Your task to perform on an android device: check out phone information Image 0: 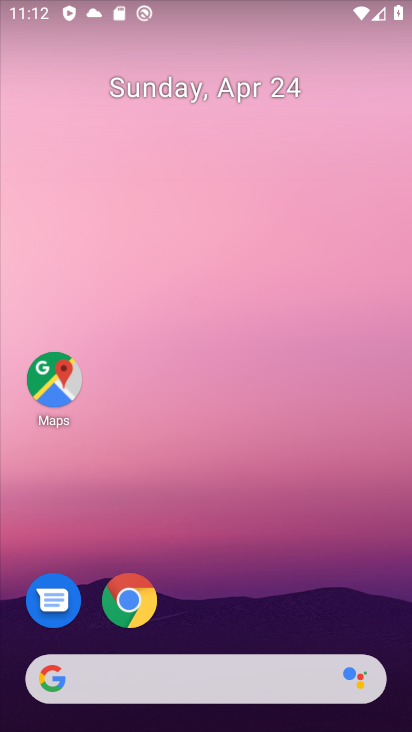
Step 0: click (273, 504)
Your task to perform on an android device: check out phone information Image 1: 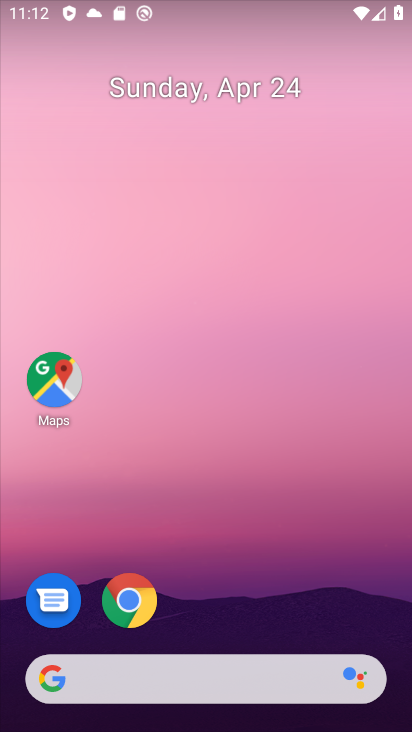
Step 1: drag from (164, 133) to (143, 84)
Your task to perform on an android device: check out phone information Image 2: 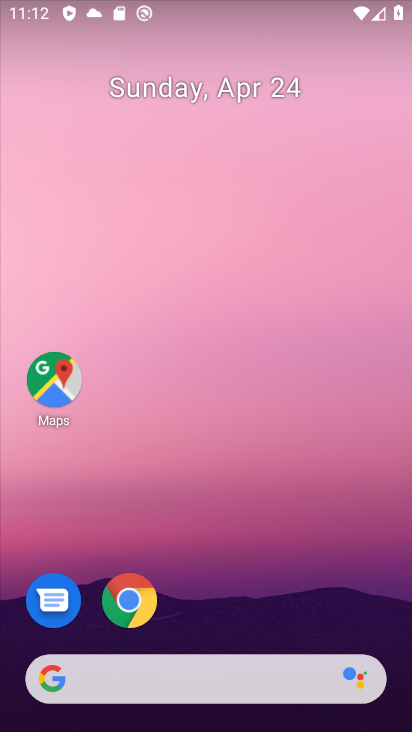
Step 2: drag from (222, 623) to (299, 2)
Your task to perform on an android device: check out phone information Image 3: 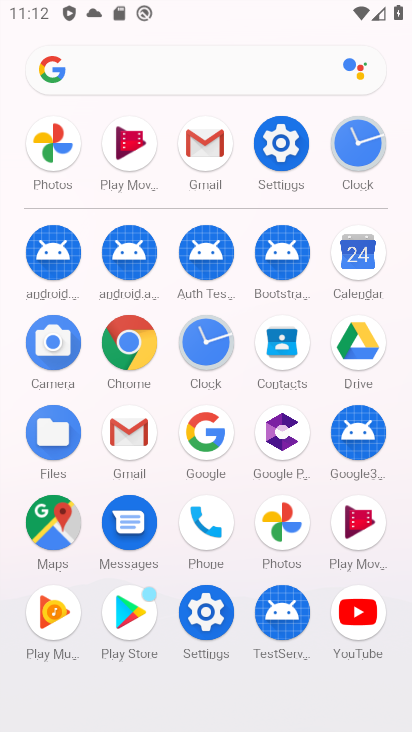
Step 3: click (278, 148)
Your task to perform on an android device: check out phone information Image 4: 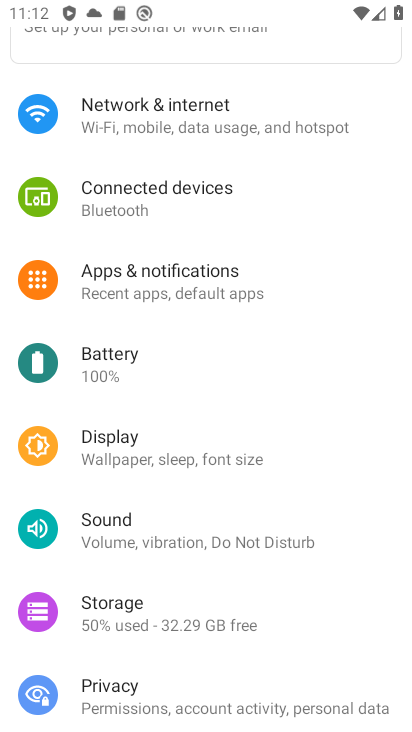
Step 4: drag from (185, 592) to (182, 59)
Your task to perform on an android device: check out phone information Image 5: 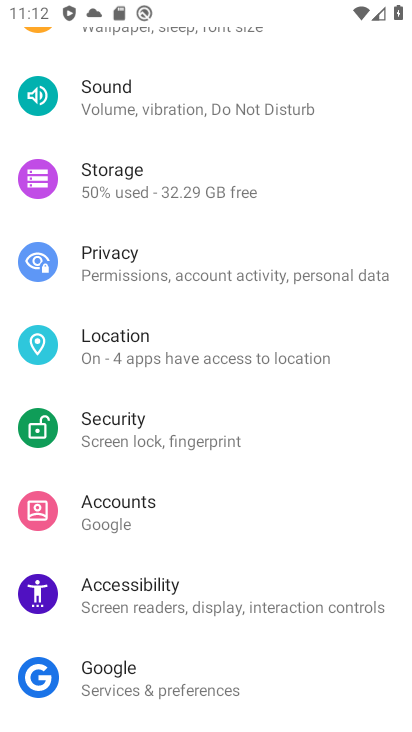
Step 5: drag from (160, 590) to (78, 112)
Your task to perform on an android device: check out phone information Image 6: 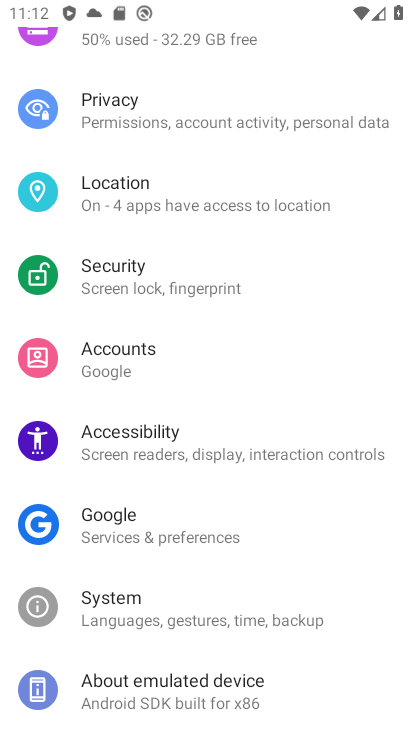
Step 6: click (163, 691)
Your task to perform on an android device: check out phone information Image 7: 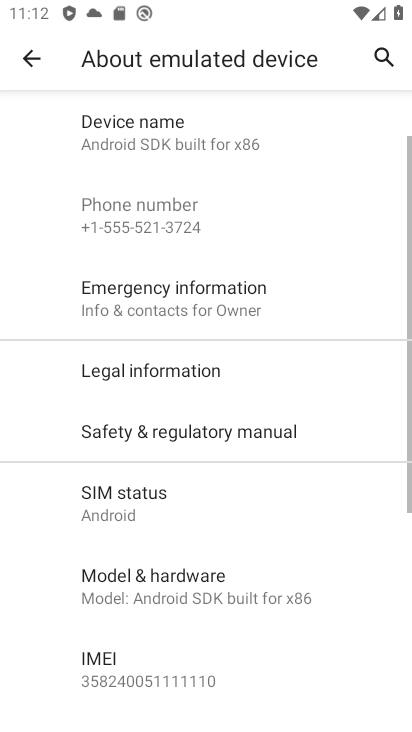
Step 7: task complete